Your task to perform on an android device: Turn on the flashlight Image 0: 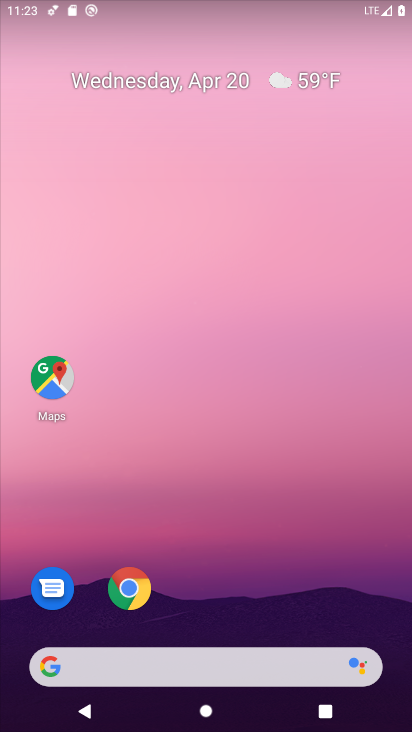
Step 0: drag from (246, 609) to (240, 45)
Your task to perform on an android device: Turn on the flashlight Image 1: 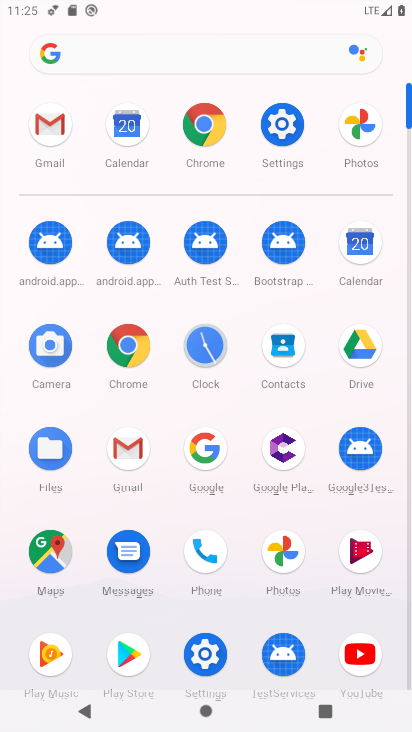
Step 1: click (276, 130)
Your task to perform on an android device: Turn on the flashlight Image 2: 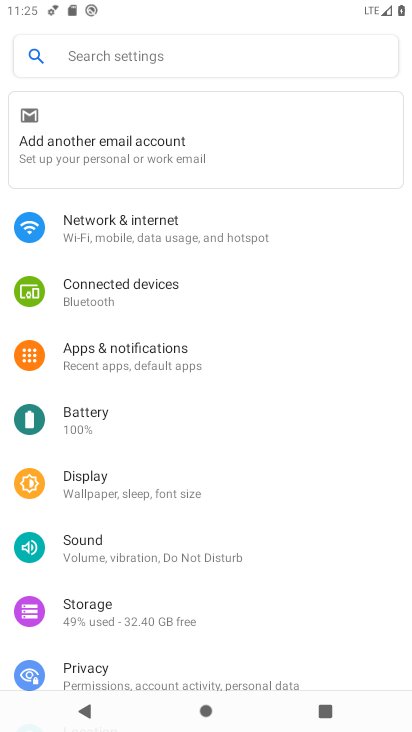
Step 2: click (140, 362)
Your task to perform on an android device: Turn on the flashlight Image 3: 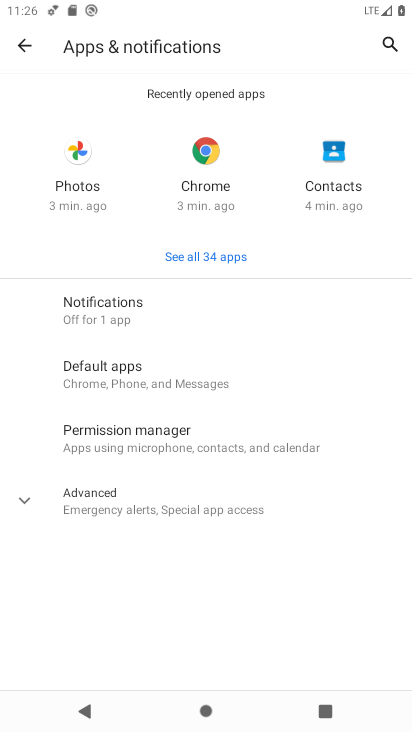
Step 3: task complete